Your task to perform on an android device: Open Yahoo.com Image 0: 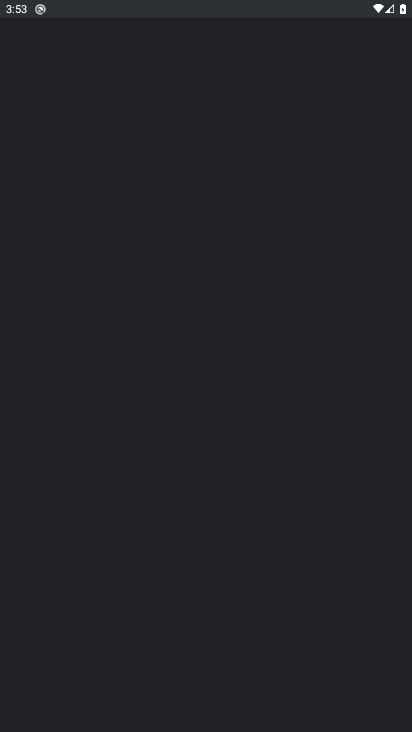
Step 0: click (140, 653)
Your task to perform on an android device: Open Yahoo.com Image 1: 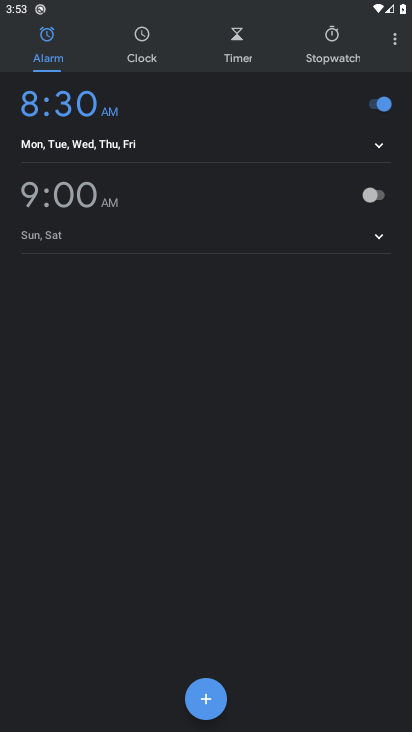
Step 1: press home button
Your task to perform on an android device: Open Yahoo.com Image 2: 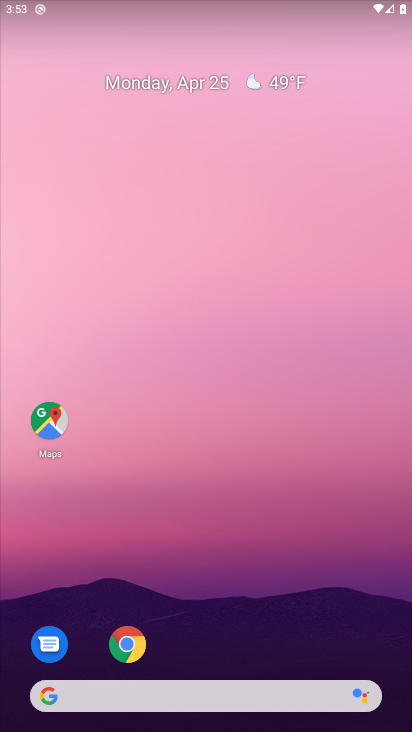
Step 2: click (137, 634)
Your task to perform on an android device: Open Yahoo.com Image 3: 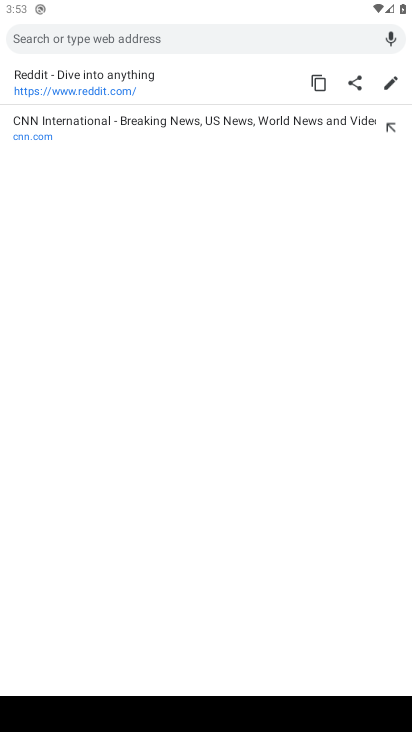
Step 3: type "yzhoo.com"
Your task to perform on an android device: Open Yahoo.com Image 4: 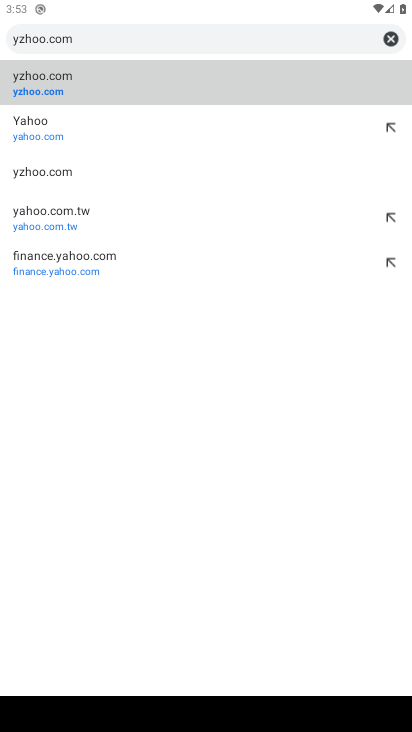
Step 4: click (185, 120)
Your task to perform on an android device: Open Yahoo.com Image 5: 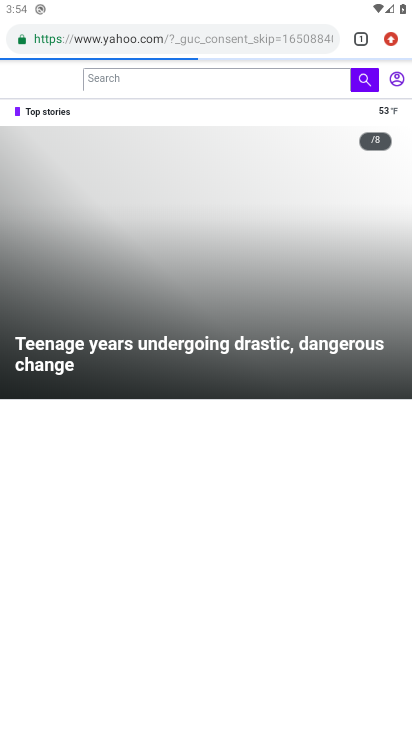
Step 5: task complete